Your task to perform on an android device: Open location settings Image 0: 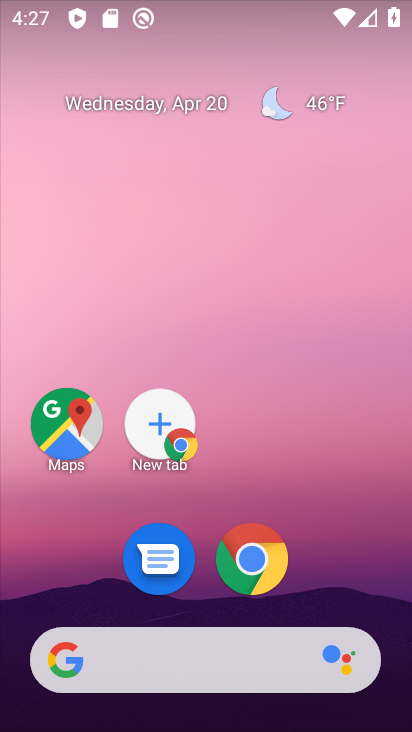
Step 0: drag from (350, 564) to (306, 226)
Your task to perform on an android device: Open location settings Image 1: 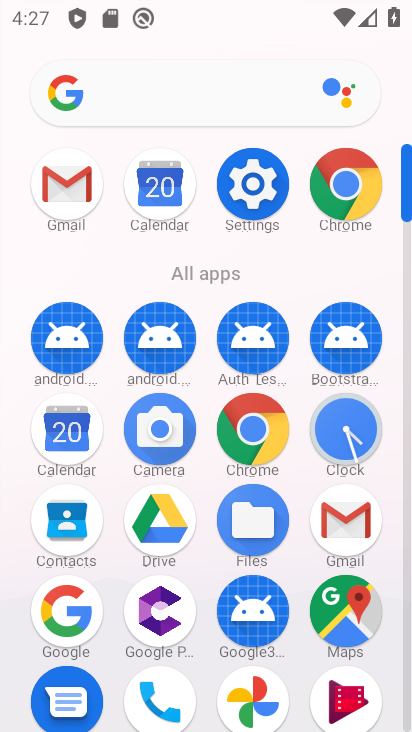
Step 1: click (258, 202)
Your task to perform on an android device: Open location settings Image 2: 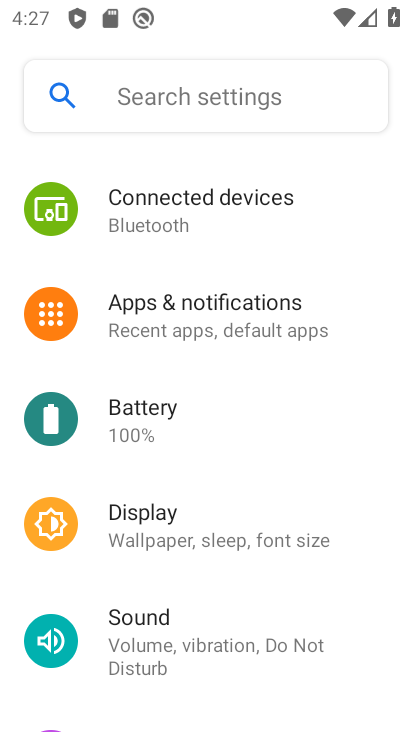
Step 2: click (283, 264)
Your task to perform on an android device: Open location settings Image 3: 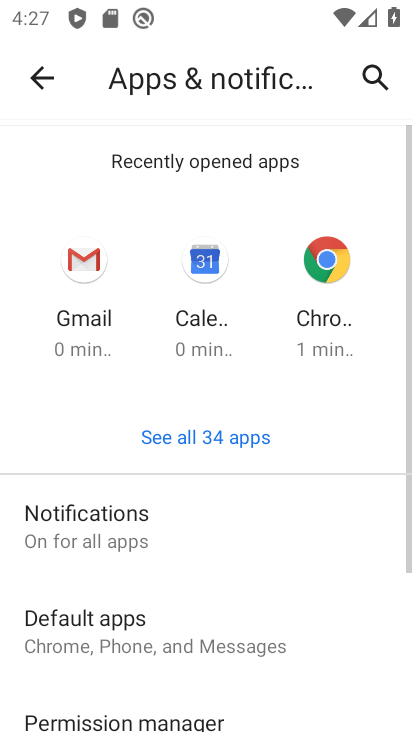
Step 3: click (40, 90)
Your task to perform on an android device: Open location settings Image 4: 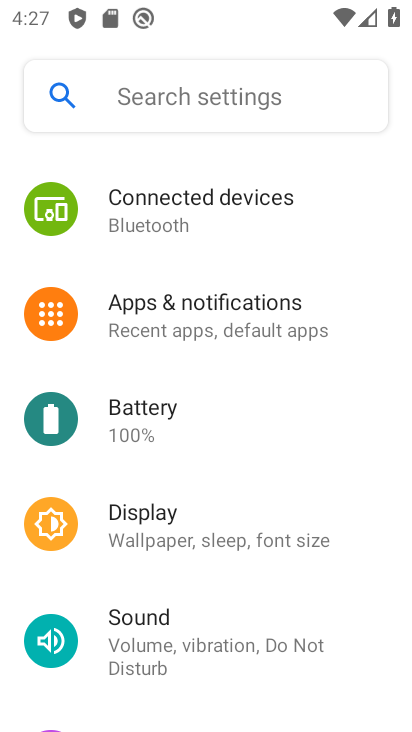
Step 4: drag from (223, 246) to (271, 631)
Your task to perform on an android device: Open location settings Image 5: 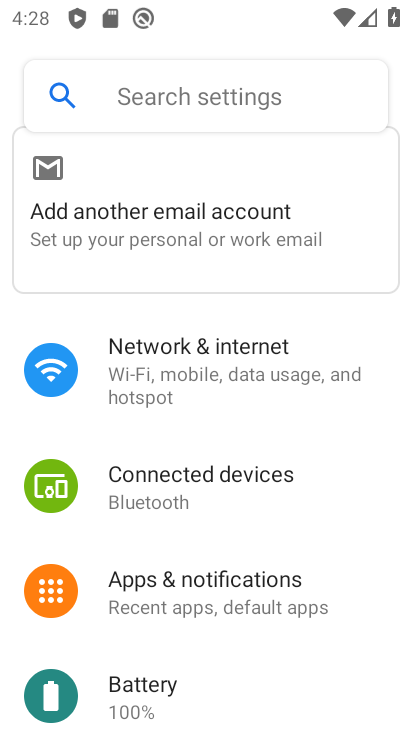
Step 5: drag from (286, 664) to (242, 14)
Your task to perform on an android device: Open location settings Image 6: 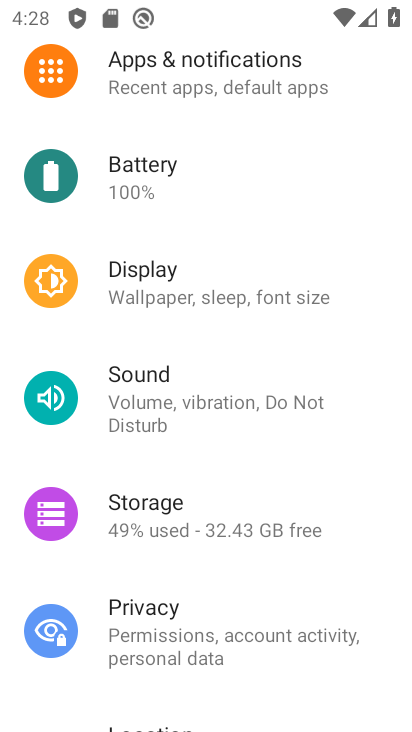
Step 6: drag from (278, 619) to (309, 145)
Your task to perform on an android device: Open location settings Image 7: 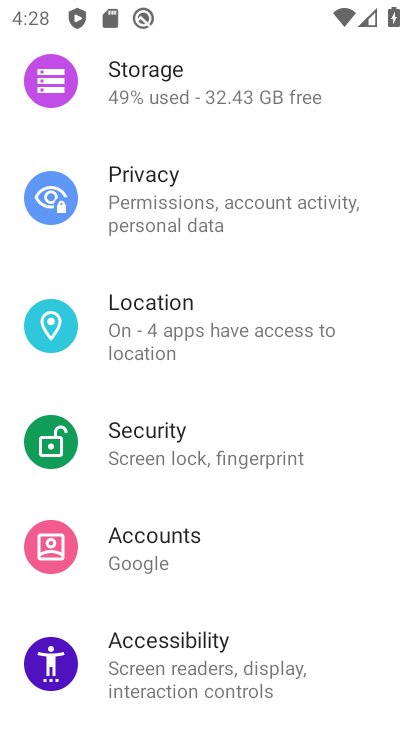
Step 7: drag from (249, 568) to (293, 298)
Your task to perform on an android device: Open location settings Image 8: 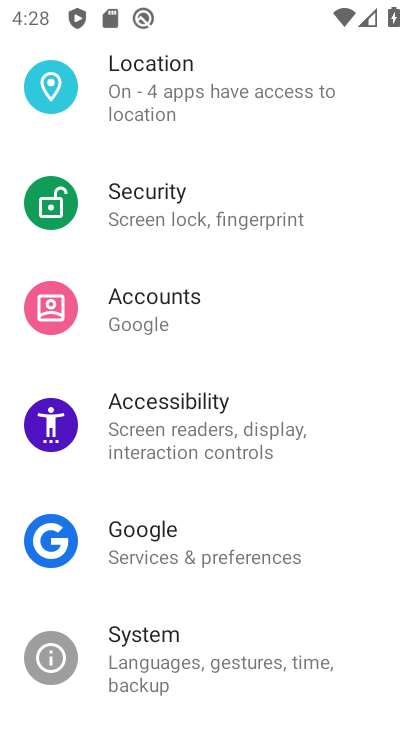
Step 8: click (263, 127)
Your task to perform on an android device: Open location settings Image 9: 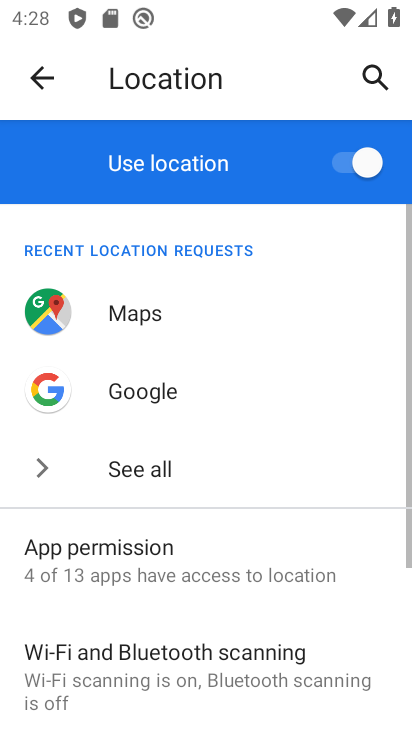
Step 9: task complete